Your task to perform on an android device: Go to settings Image 0: 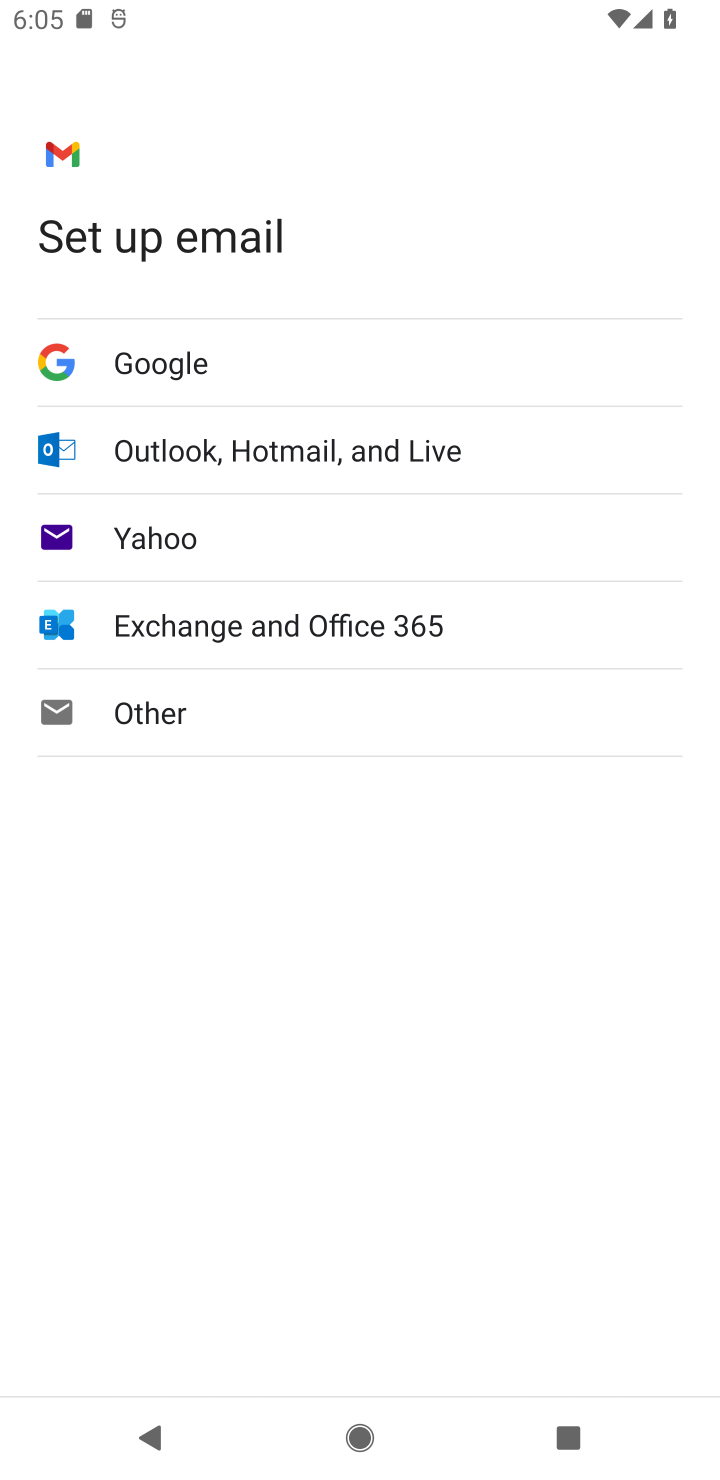
Step 0: press home button
Your task to perform on an android device: Go to settings Image 1: 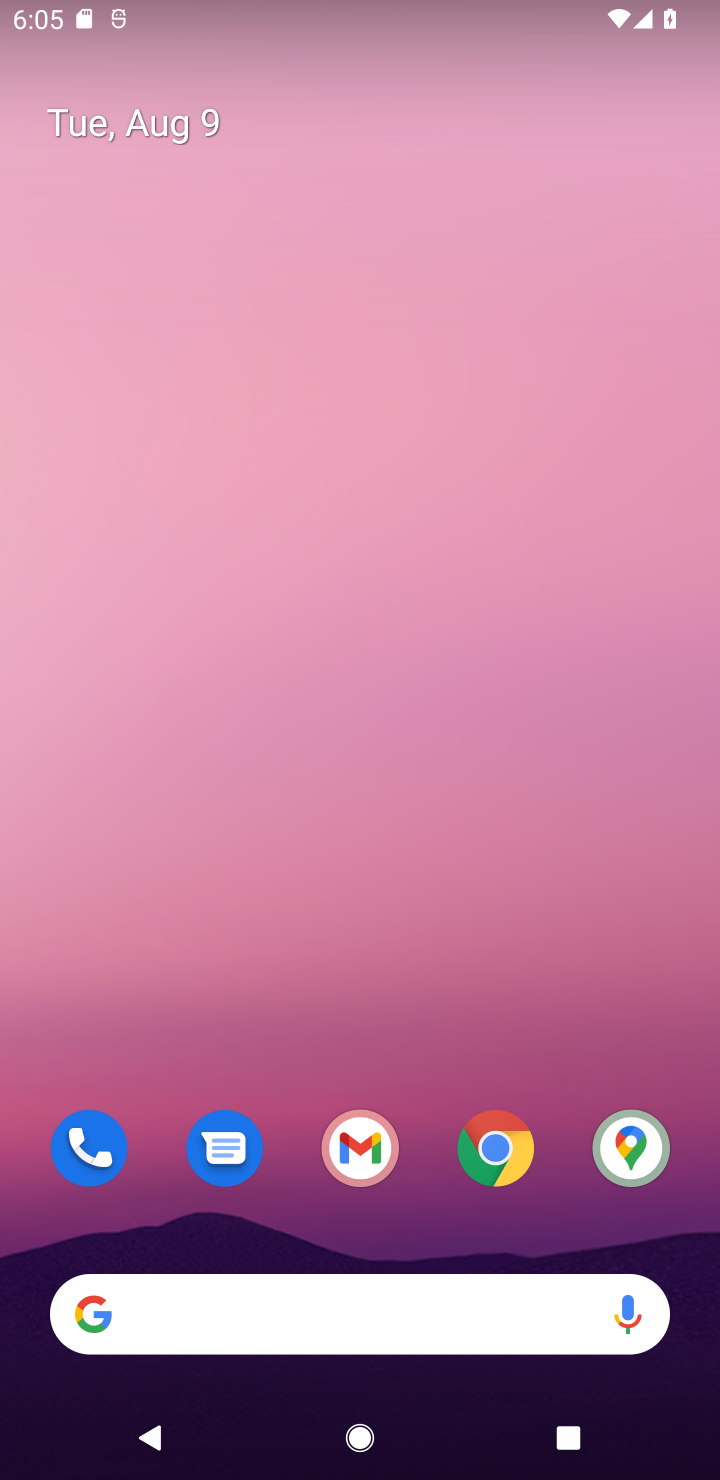
Step 1: drag from (302, 917) to (251, 100)
Your task to perform on an android device: Go to settings Image 2: 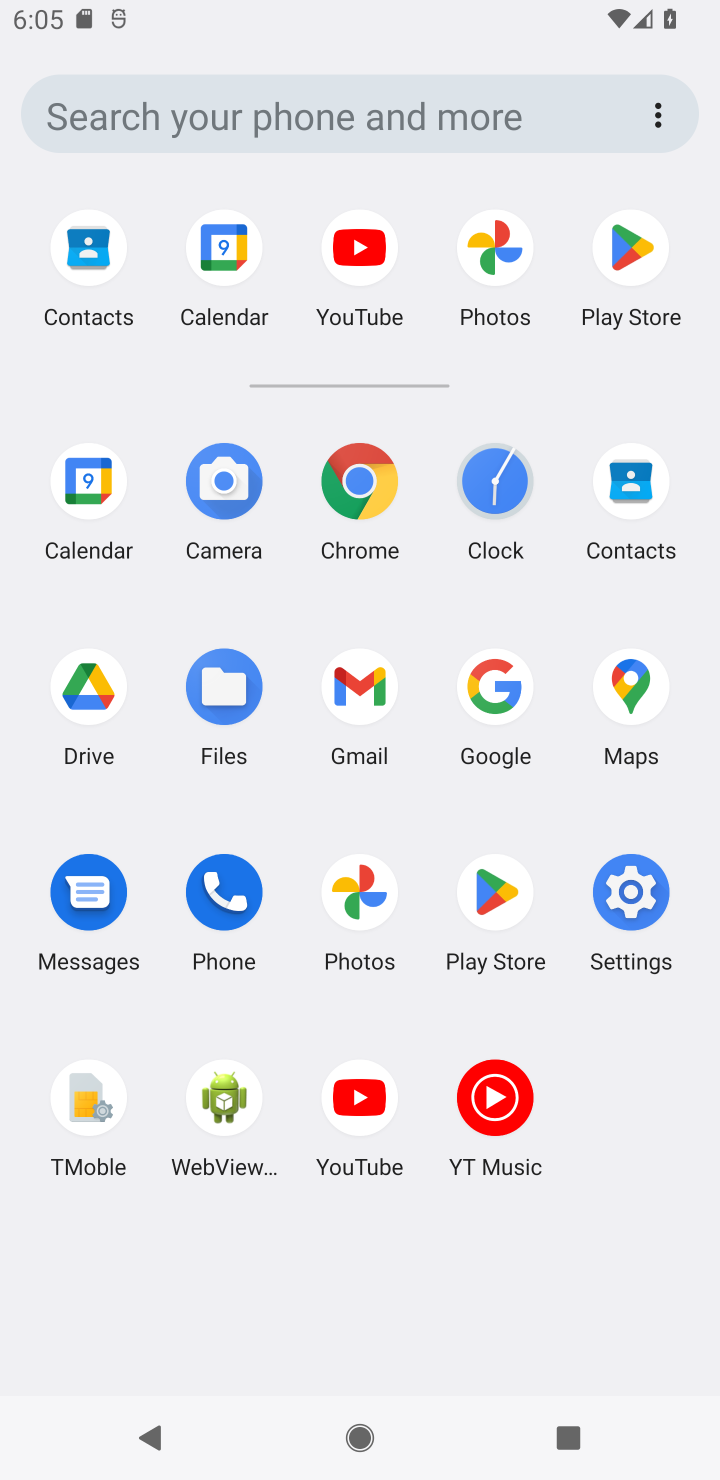
Step 2: click (630, 909)
Your task to perform on an android device: Go to settings Image 3: 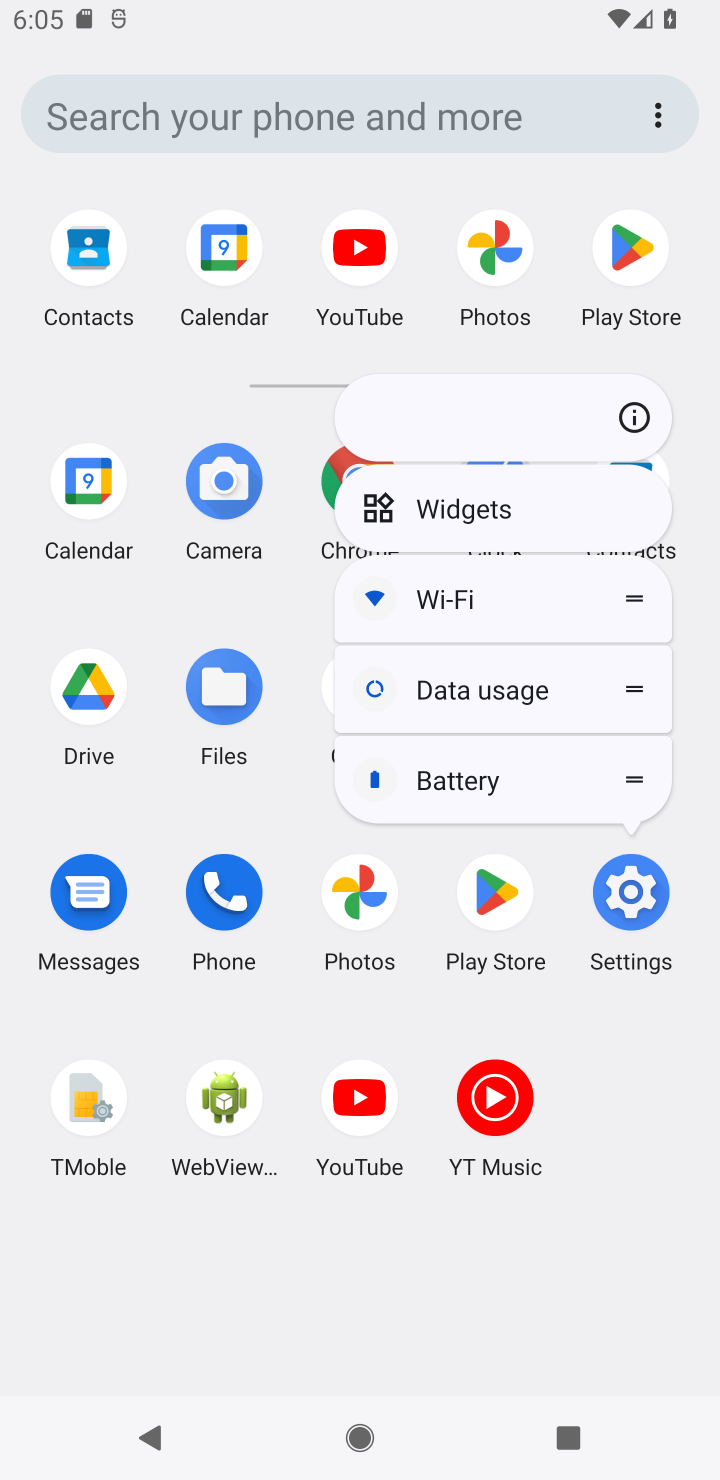
Step 3: click (637, 945)
Your task to perform on an android device: Go to settings Image 4: 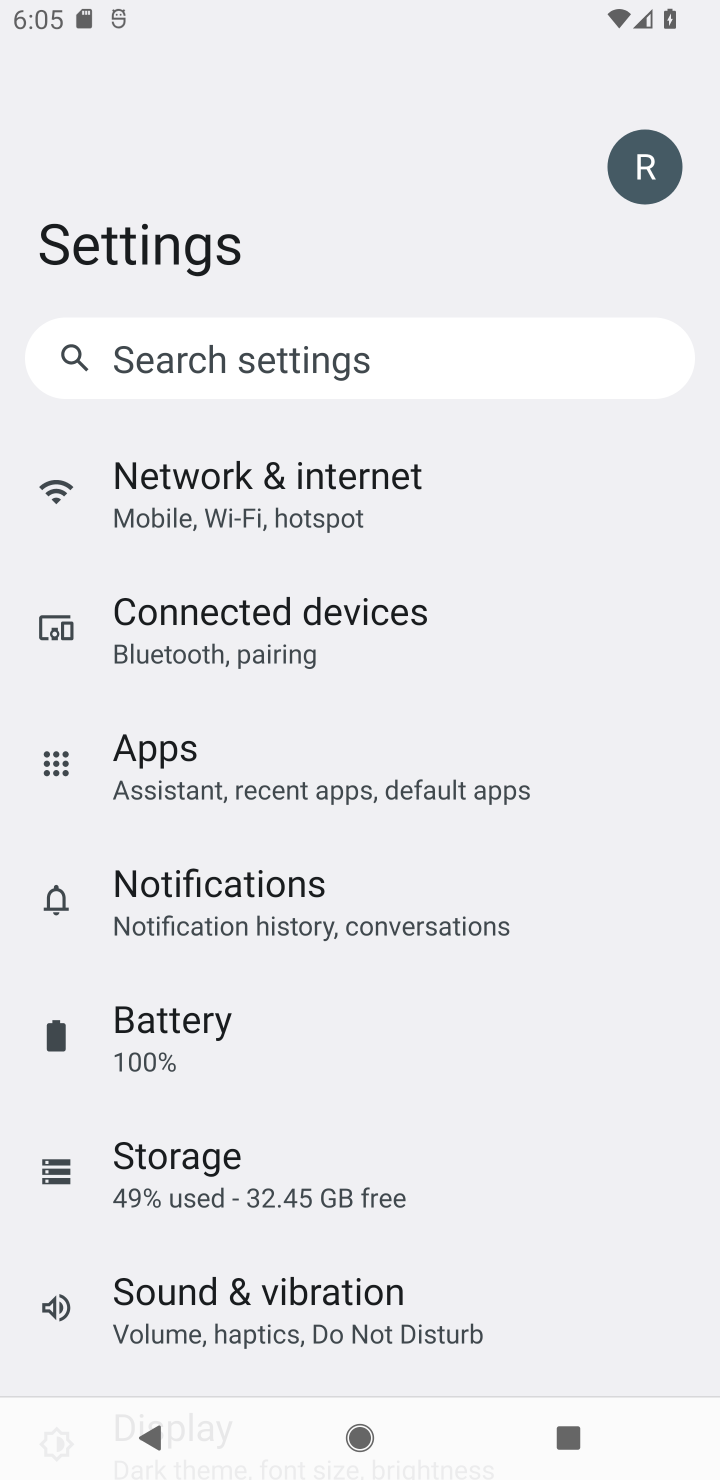
Step 4: task complete